Your task to perform on an android device: open app "Duolingo: language lessons" (install if not already installed) and go to login screen Image 0: 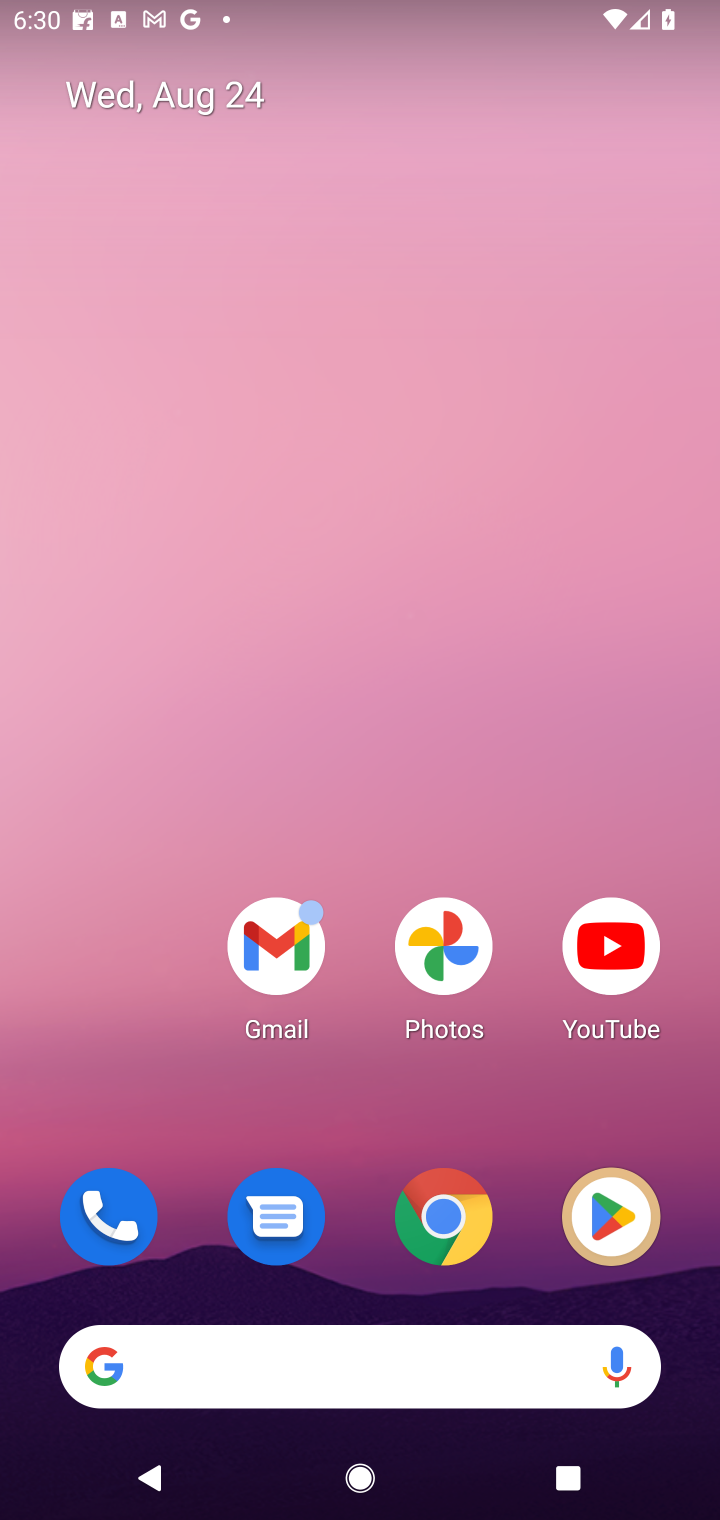
Step 0: click (605, 1246)
Your task to perform on an android device: open app "Duolingo: language lessons" (install if not already installed) and go to login screen Image 1: 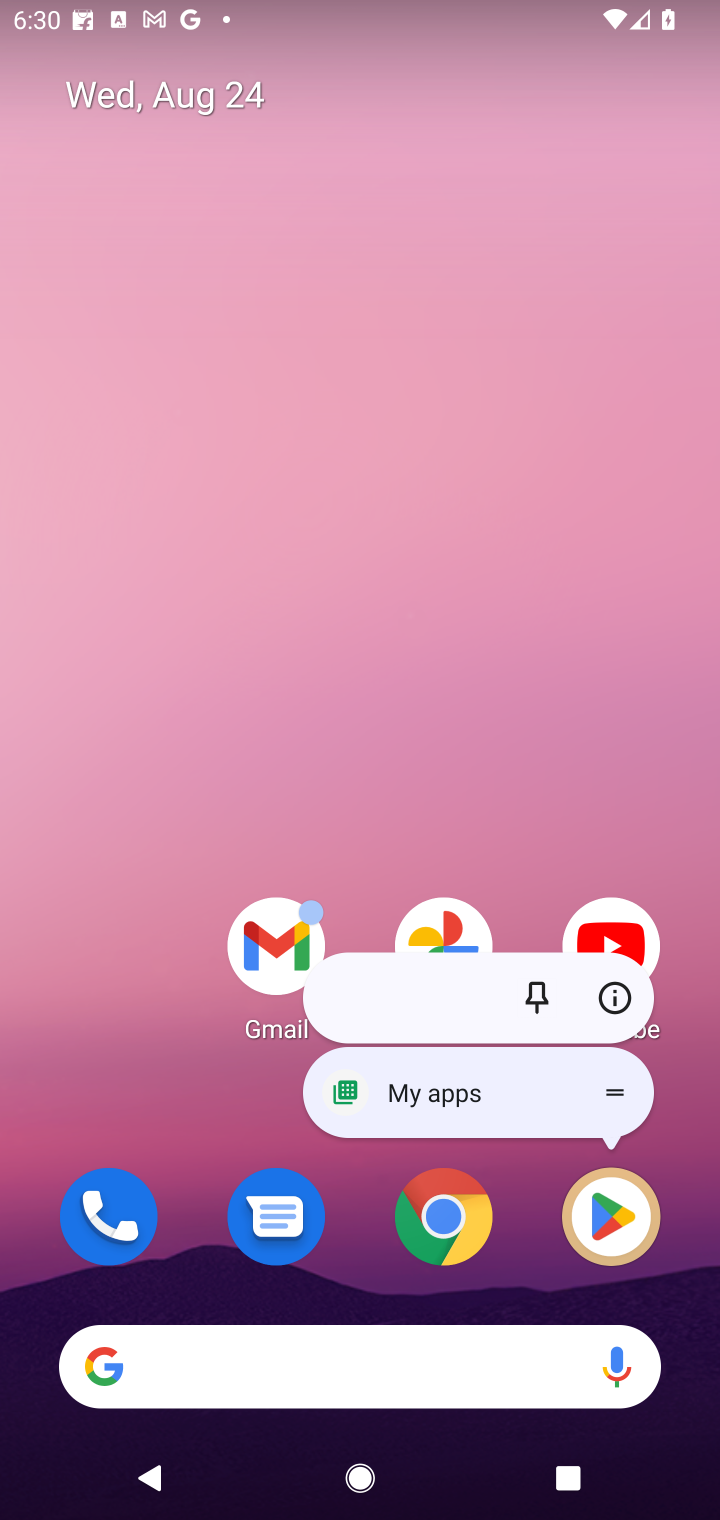
Step 1: click (599, 1204)
Your task to perform on an android device: open app "Duolingo: language lessons" (install if not already installed) and go to login screen Image 2: 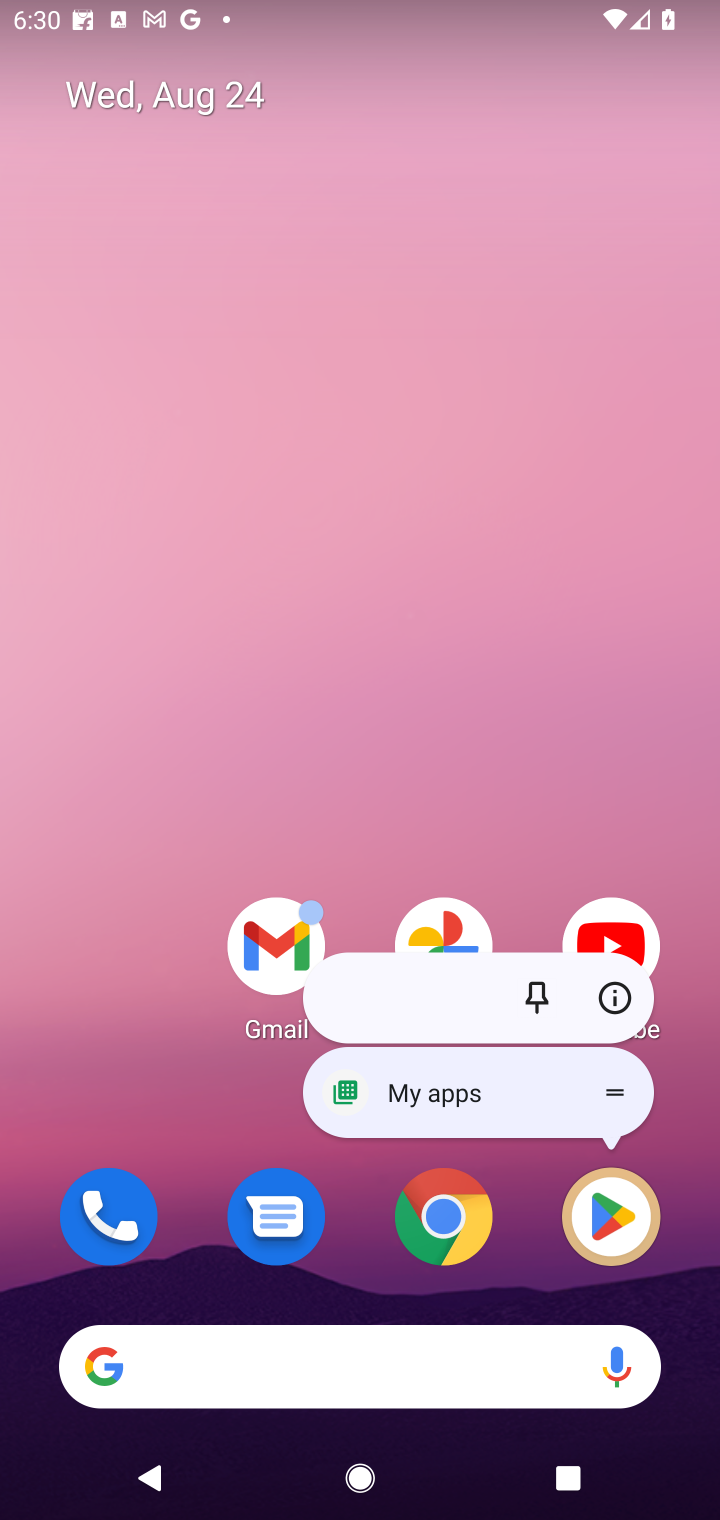
Step 2: click (601, 1229)
Your task to perform on an android device: open app "Duolingo: language lessons" (install if not already installed) and go to login screen Image 3: 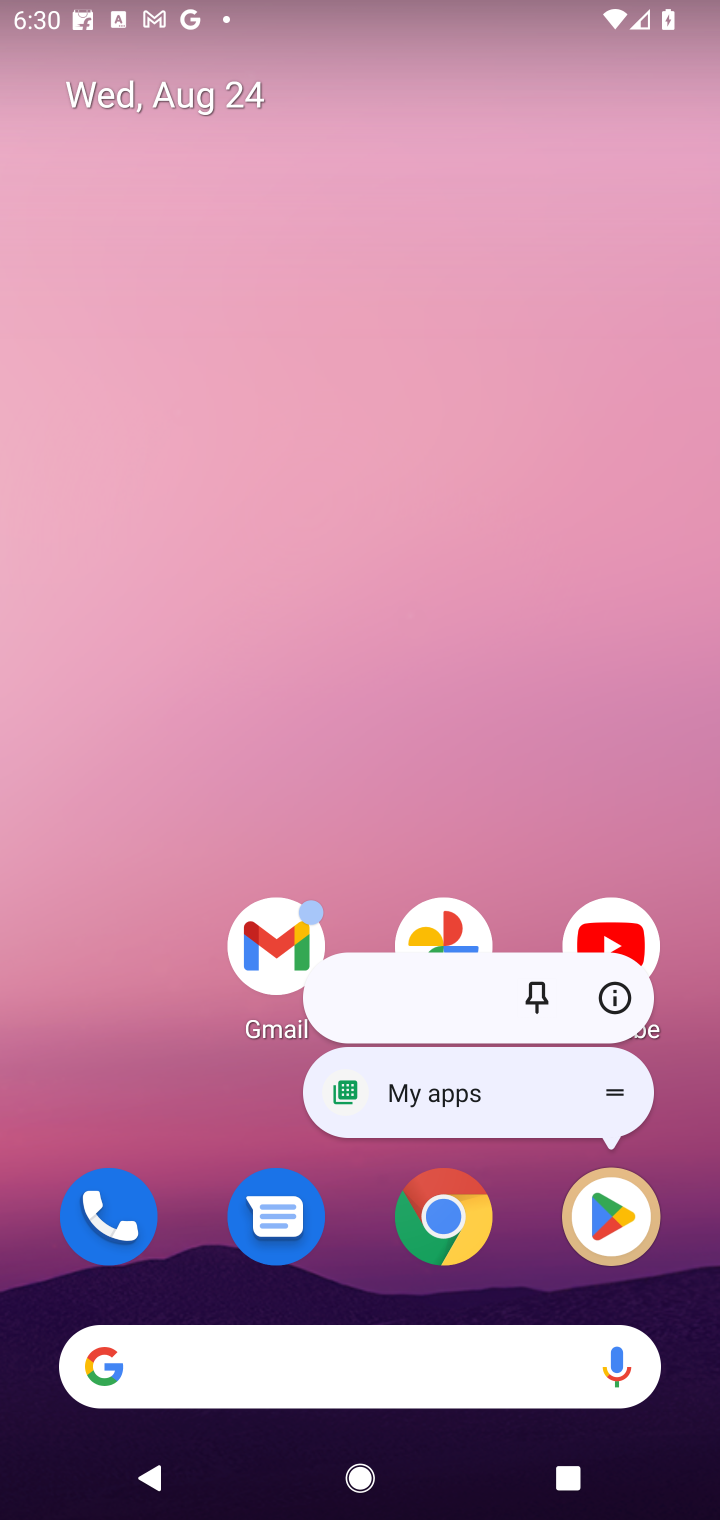
Step 3: click (567, 1207)
Your task to perform on an android device: open app "Duolingo: language lessons" (install if not already installed) and go to login screen Image 4: 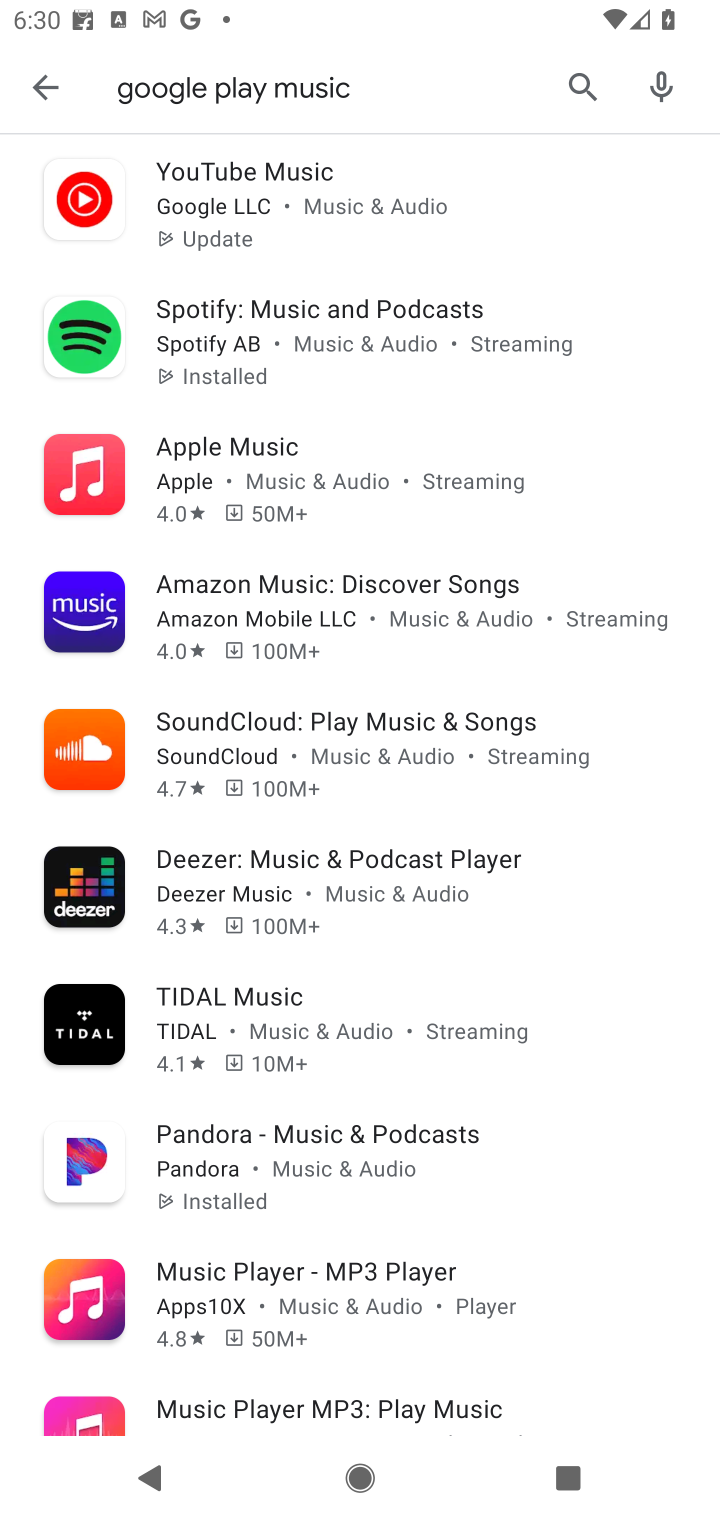
Step 4: click (602, 75)
Your task to perform on an android device: open app "Duolingo: language lessons" (install if not already installed) and go to login screen Image 5: 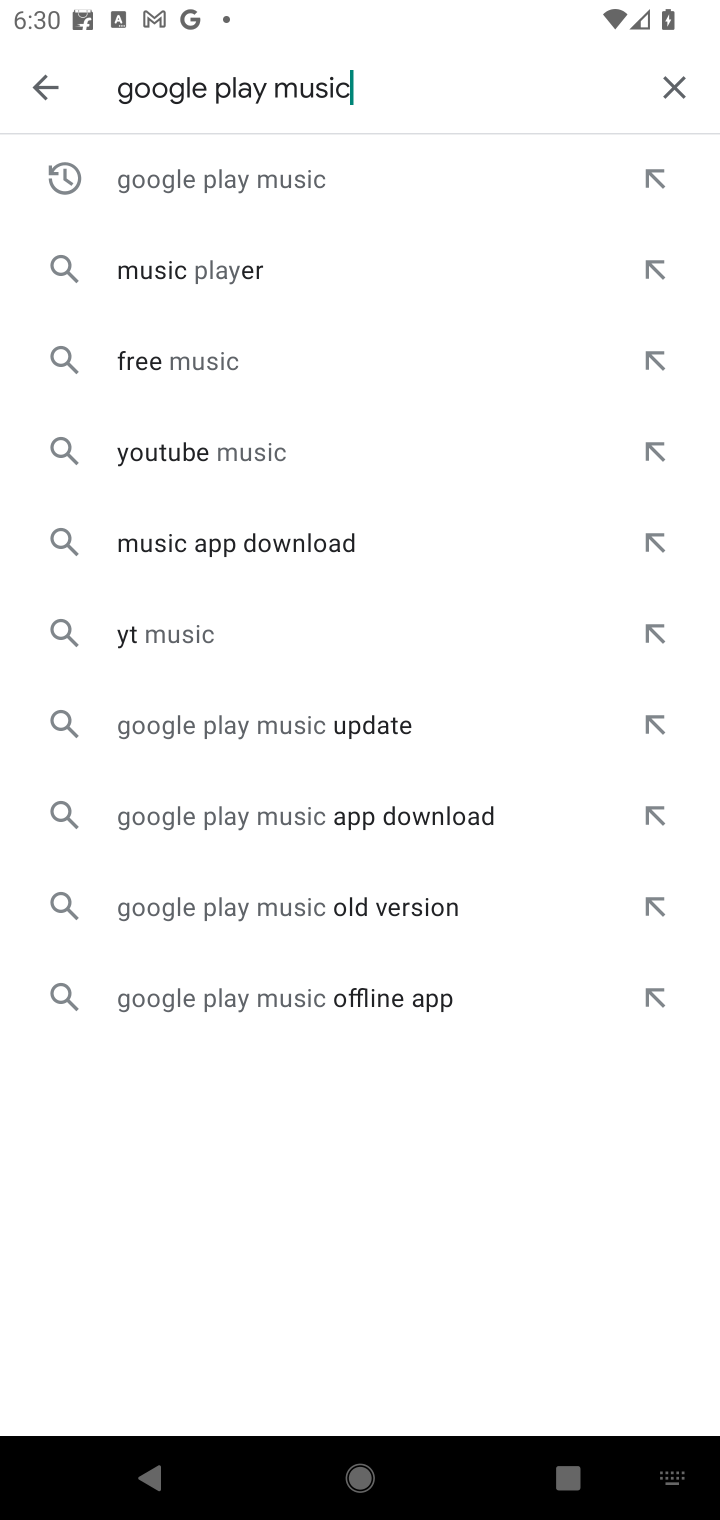
Step 5: click (676, 87)
Your task to perform on an android device: open app "Duolingo: language lessons" (install if not already installed) and go to login screen Image 6: 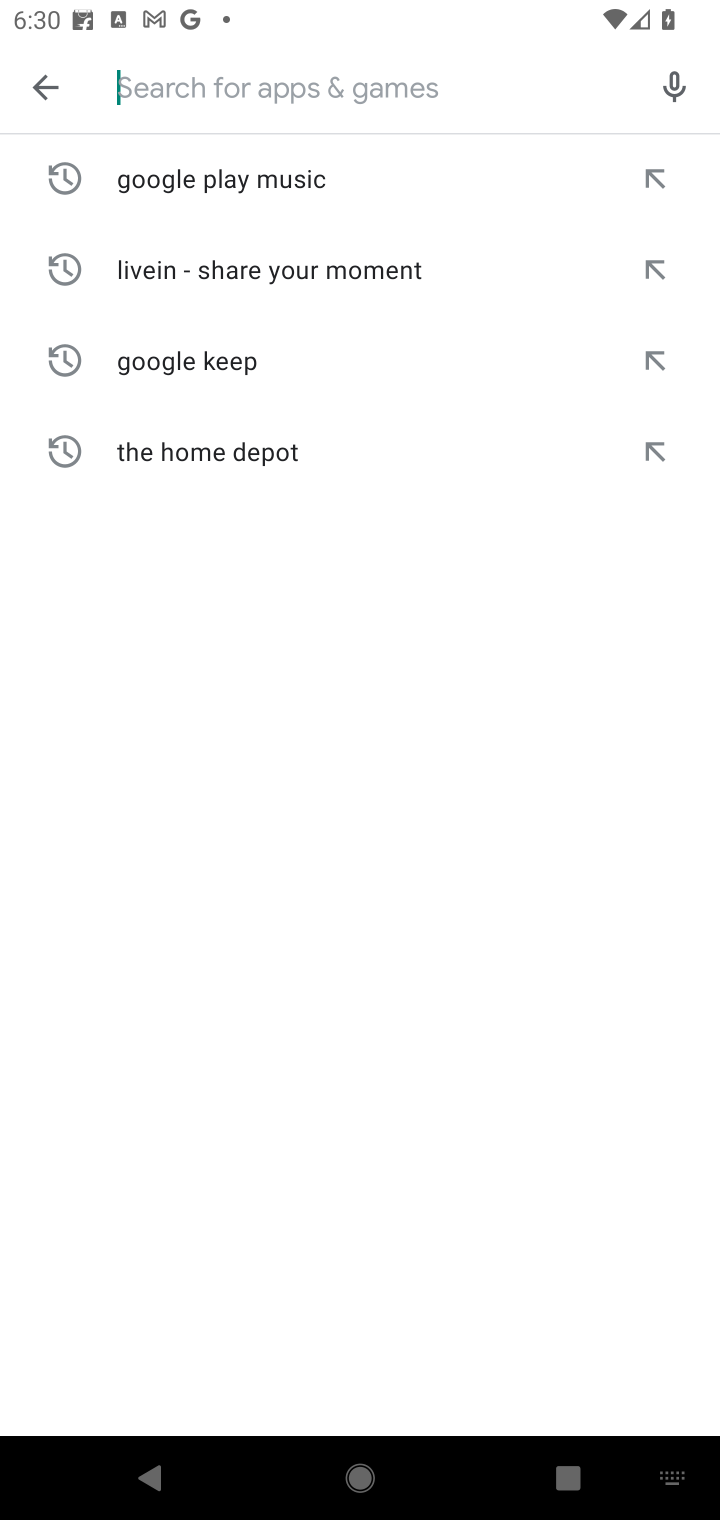
Step 6: type "Duolingo: language lessons"
Your task to perform on an android device: open app "Duolingo: language lessons" (install if not already installed) and go to login screen Image 7: 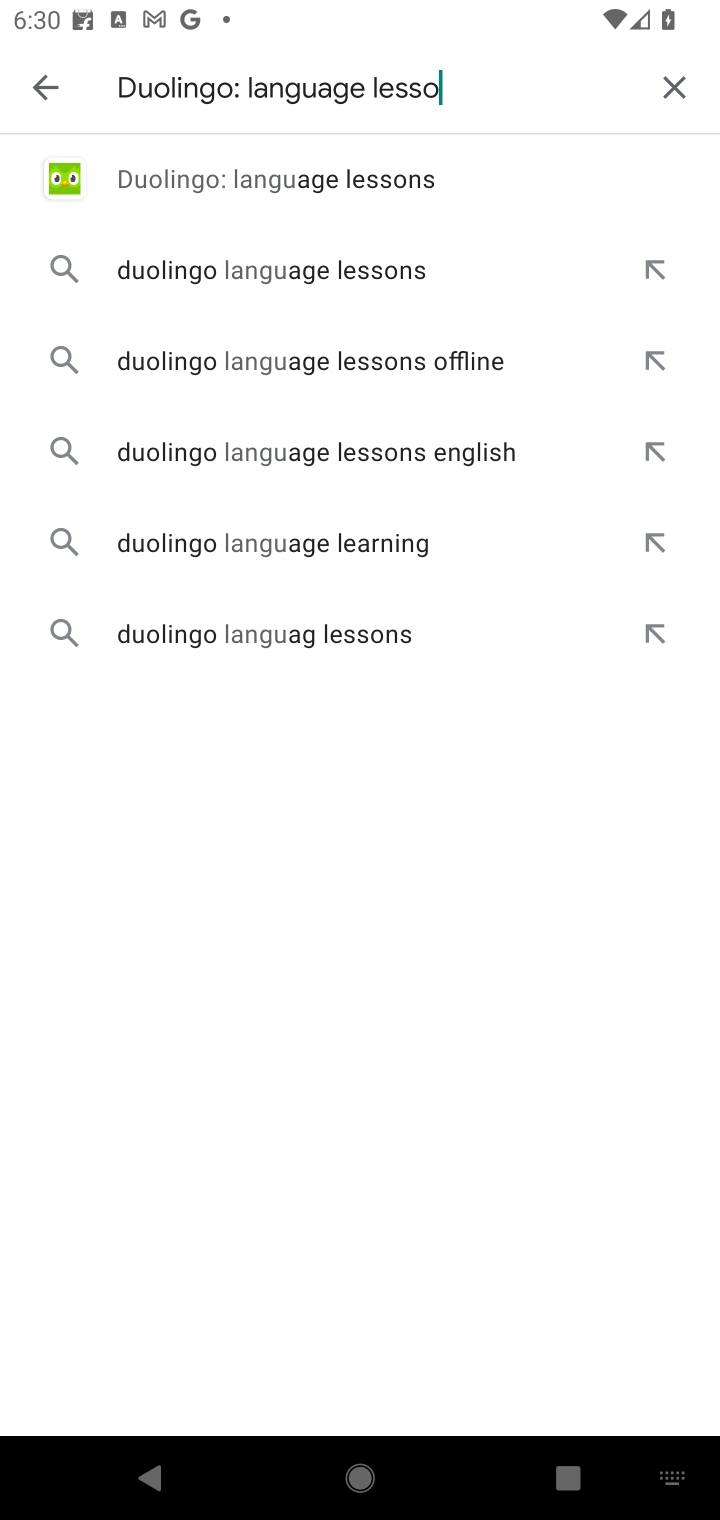
Step 7: type ""
Your task to perform on an android device: open app "Duolingo: language lessons" (install if not already installed) and go to login screen Image 8: 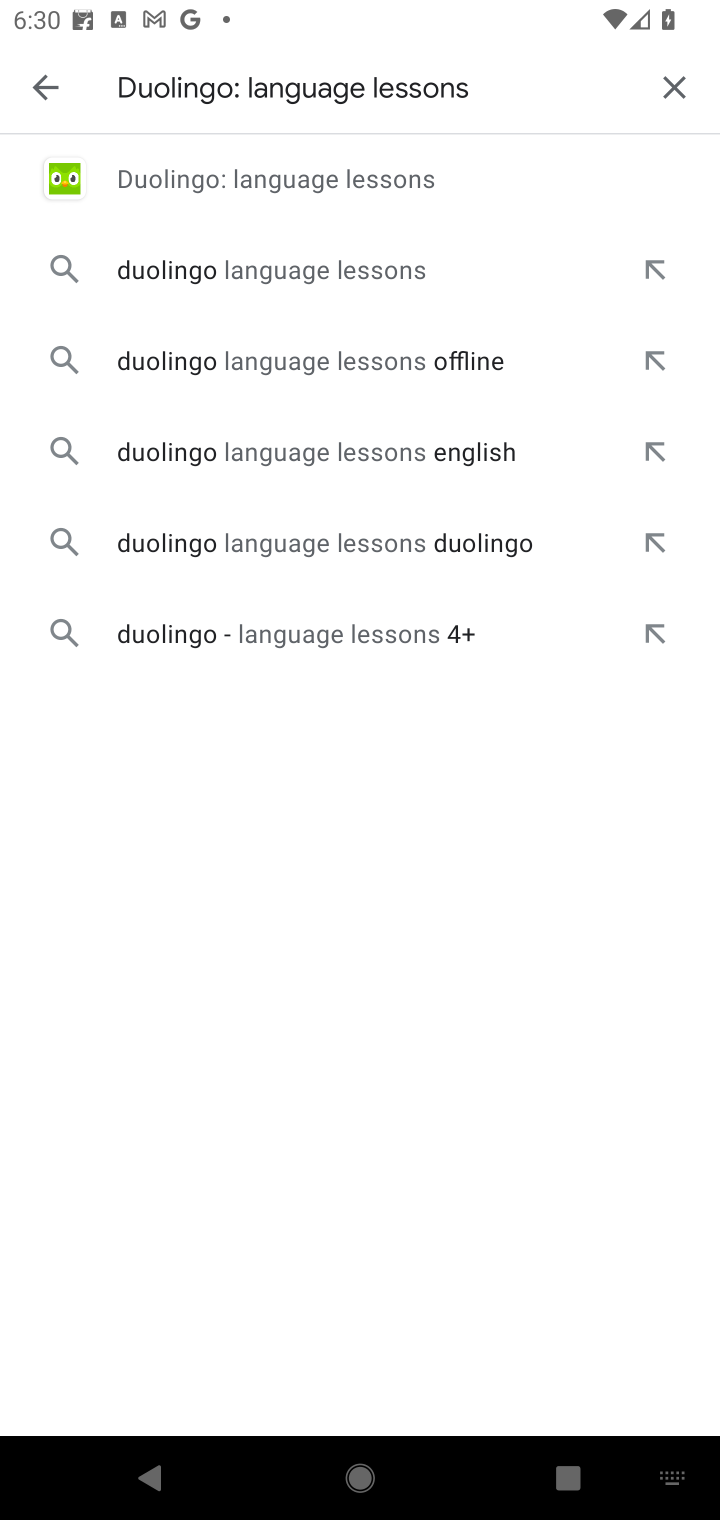
Step 8: click (250, 194)
Your task to perform on an android device: open app "Duolingo: language lessons" (install if not already installed) and go to login screen Image 9: 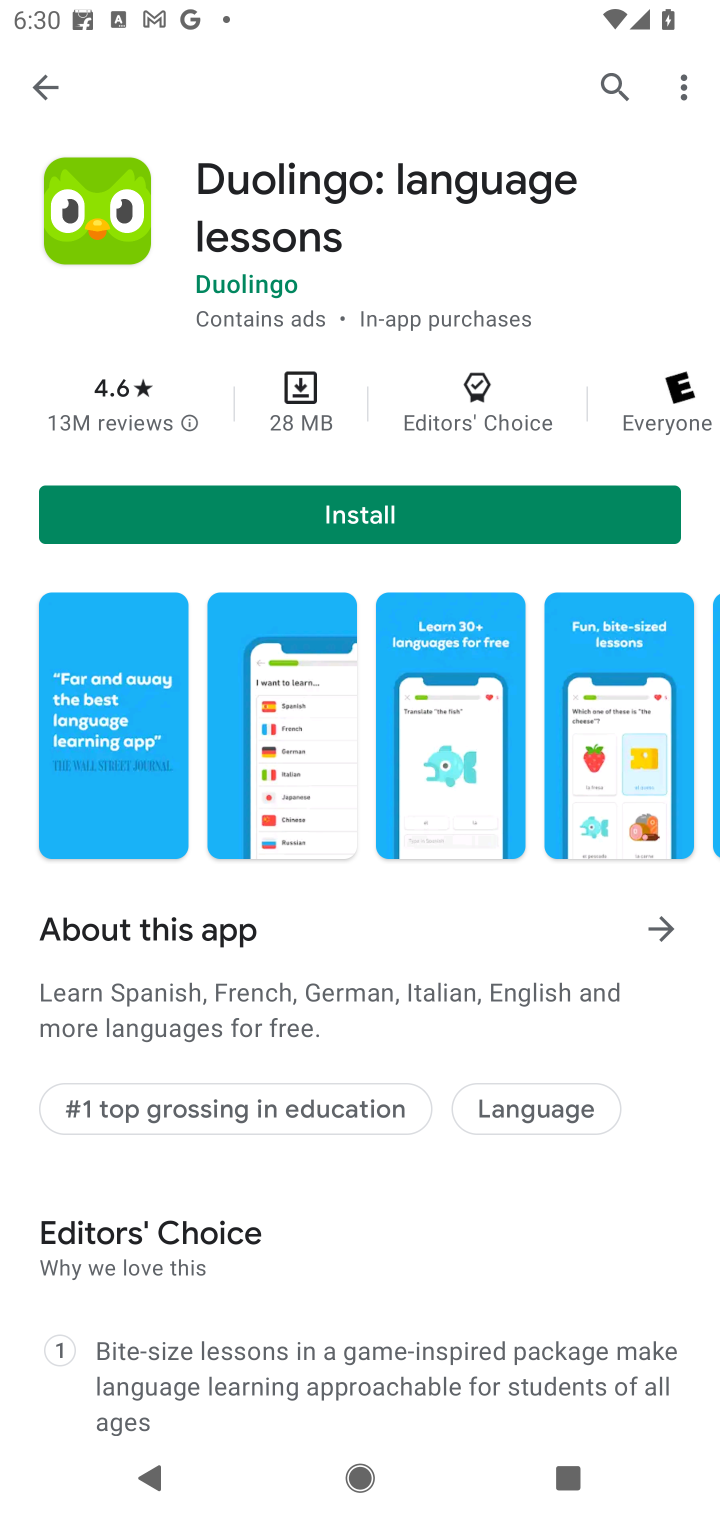
Step 9: click (459, 498)
Your task to perform on an android device: open app "Duolingo: language lessons" (install if not already installed) and go to login screen Image 10: 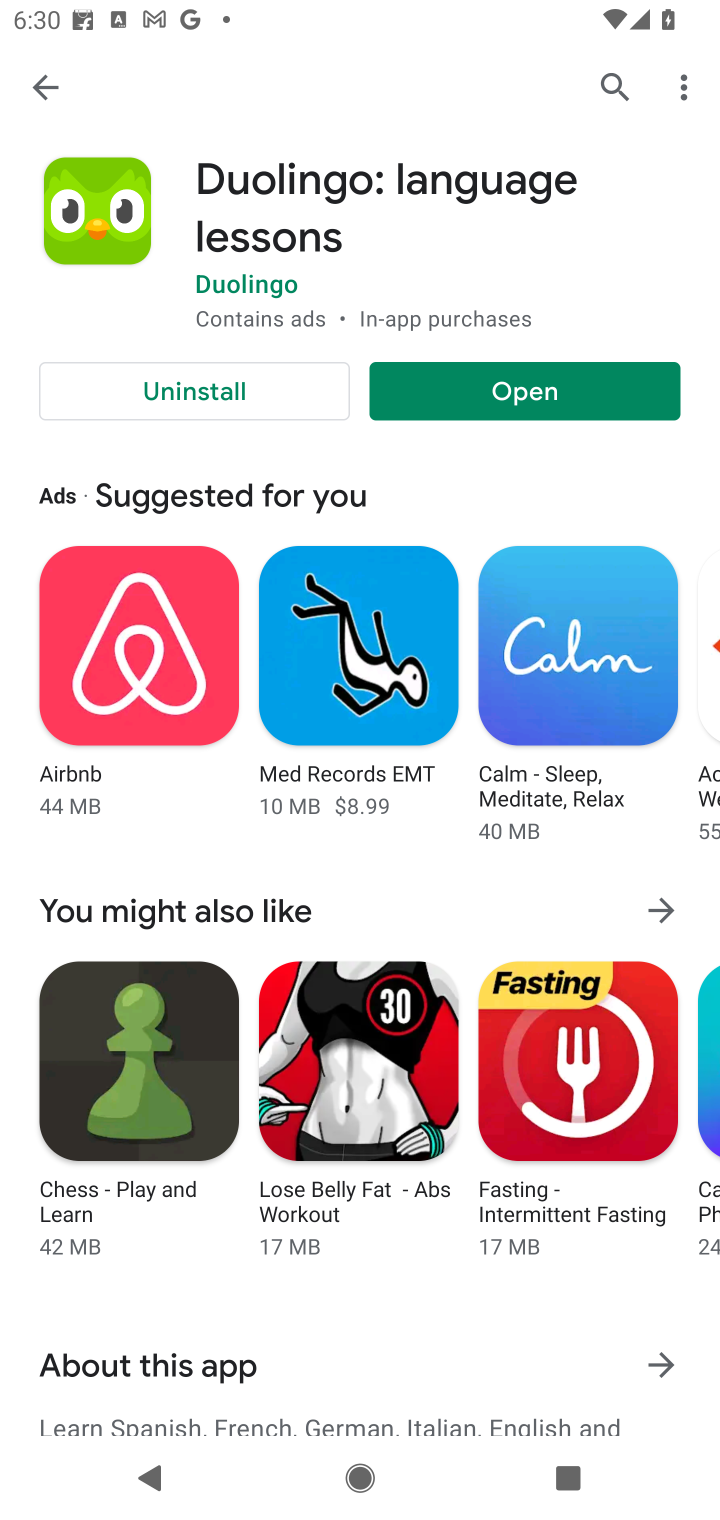
Step 10: click (504, 367)
Your task to perform on an android device: open app "Duolingo: language lessons" (install if not already installed) and go to login screen Image 11: 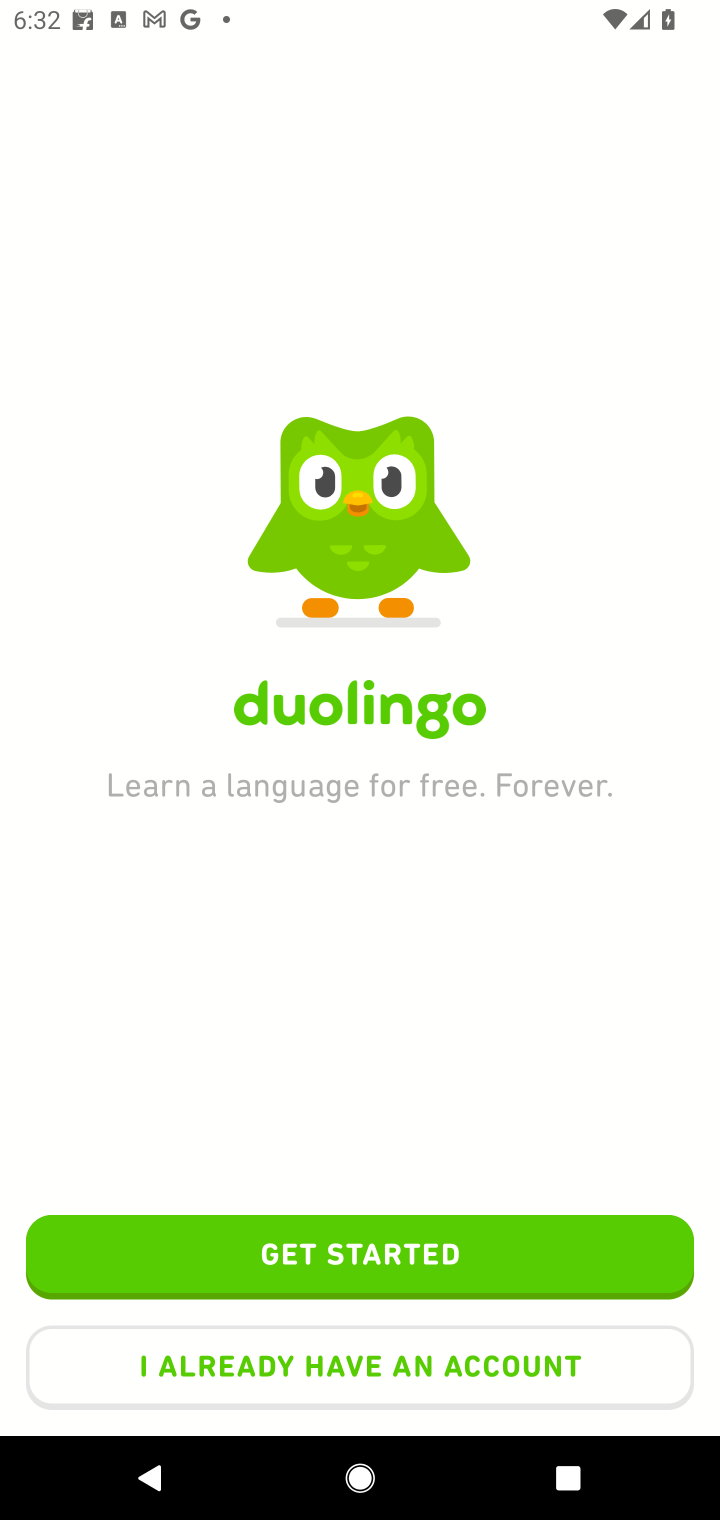
Step 11: task complete